Your task to perform on an android device: turn off translation in the chrome app Image 0: 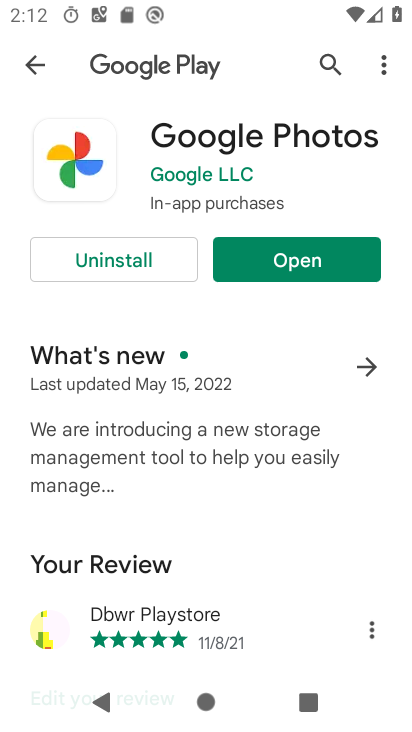
Step 0: press home button
Your task to perform on an android device: turn off translation in the chrome app Image 1: 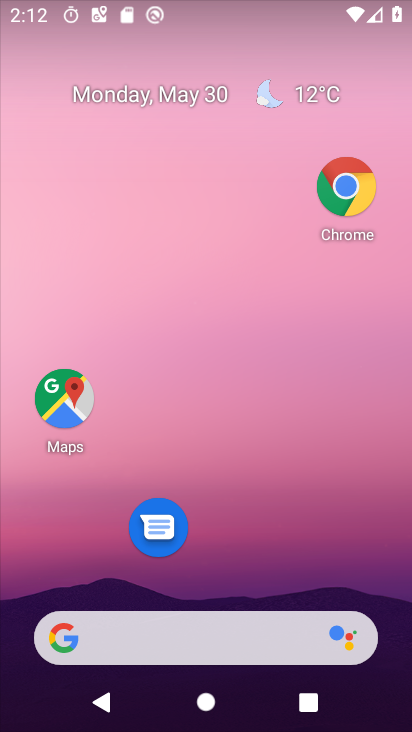
Step 1: drag from (228, 576) to (257, 122)
Your task to perform on an android device: turn off translation in the chrome app Image 2: 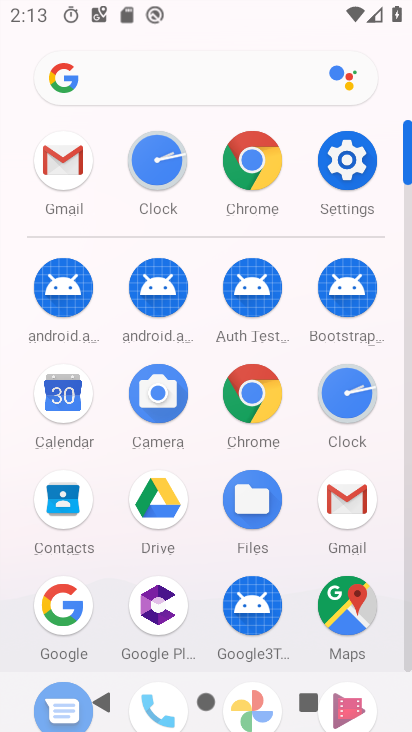
Step 2: click (259, 156)
Your task to perform on an android device: turn off translation in the chrome app Image 3: 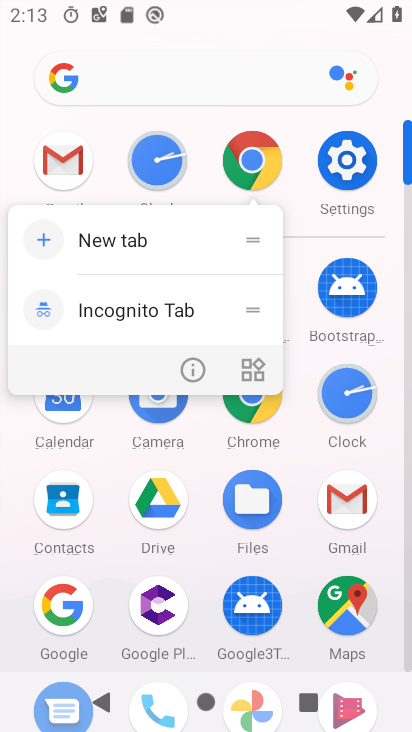
Step 3: click (198, 361)
Your task to perform on an android device: turn off translation in the chrome app Image 4: 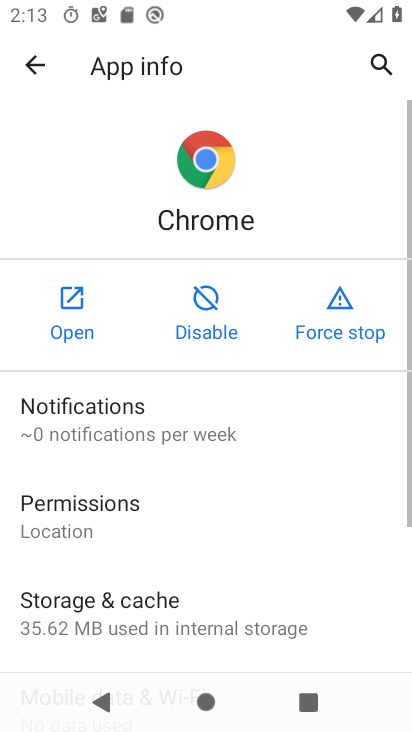
Step 4: click (86, 300)
Your task to perform on an android device: turn off translation in the chrome app Image 5: 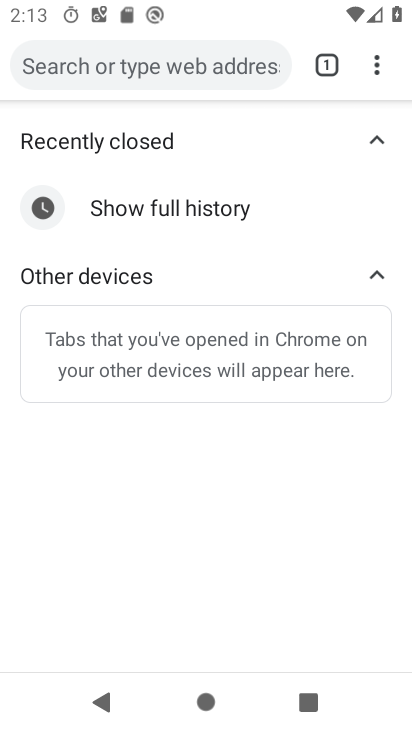
Step 5: drag from (368, 58) to (185, 563)
Your task to perform on an android device: turn off translation in the chrome app Image 6: 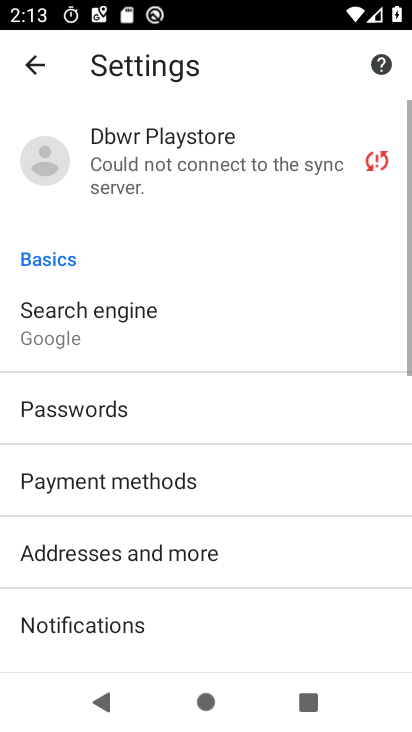
Step 6: drag from (212, 584) to (284, 136)
Your task to perform on an android device: turn off translation in the chrome app Image 7: 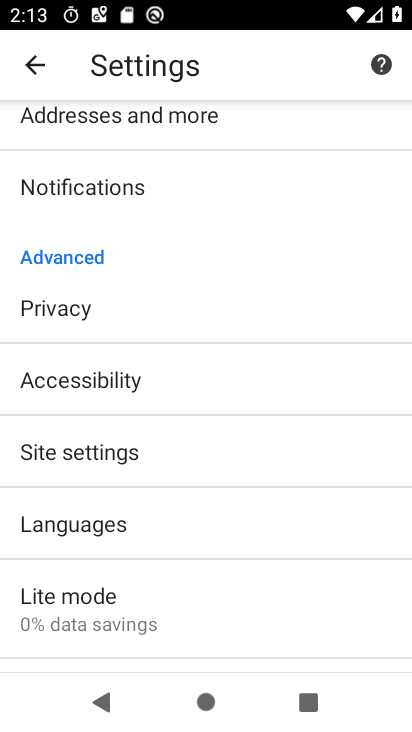
Step 7: click (179, 524)
Your task to perform on an android device: turn off translation in the chrome app Image 8: 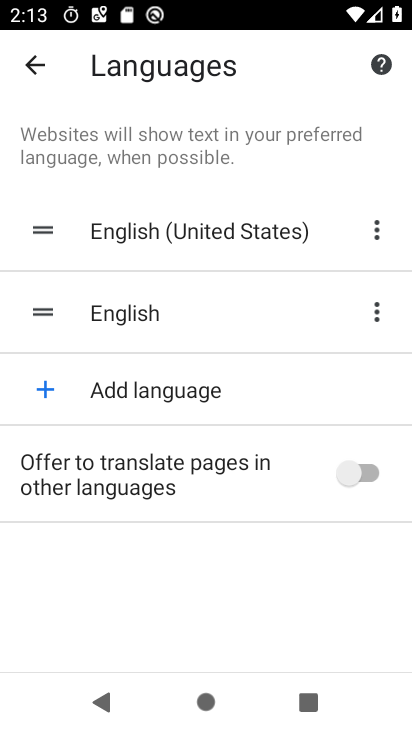
Step 8: task complete